Your task to perform on an android device: turn on showing notifications on the lock screen Image 0: 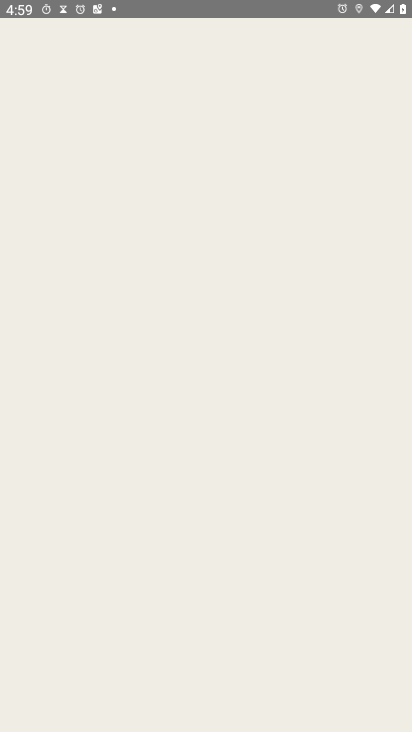
Step 0: press home button
Your task to perform on an android device: turn on showing notifications on the lock screen Image 1: 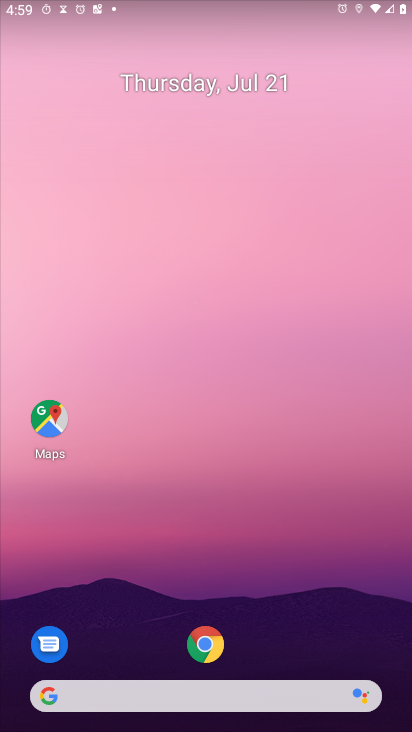
Step 1: drag from (253, 77) to (265, 12)
Your task to perform on an android device: turn on showing notifications on the lock screen Image 2: 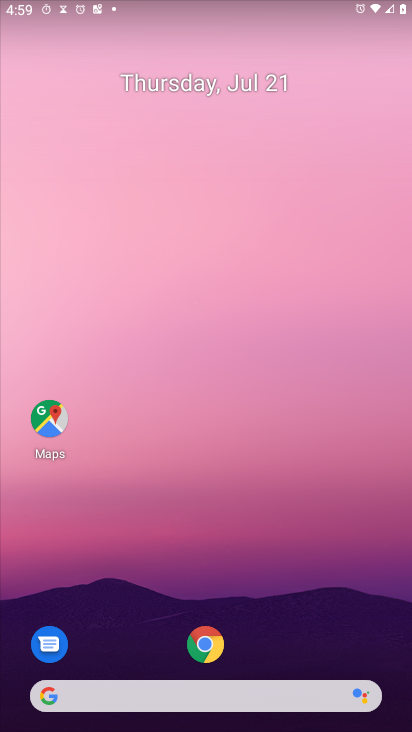
Step 2: drag from (276, 564) to (266, 0)
Your task to perform on an android device: turn on showing notifications on the lock screen Image 3: 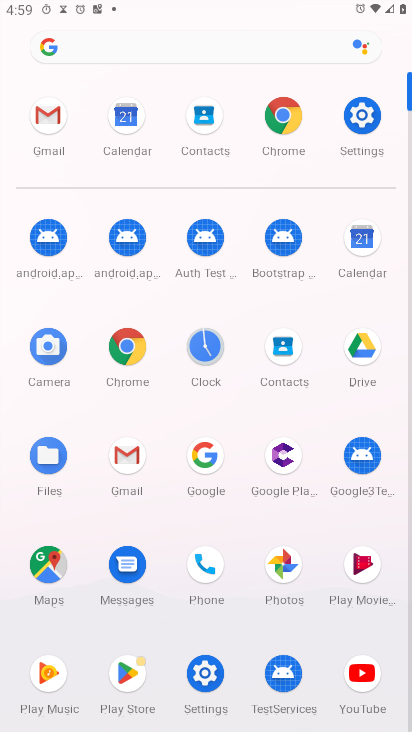
Step 3: click (363, 116)
Your task to perform on an android device: turn on showing notifications on the lock screen Image 4: 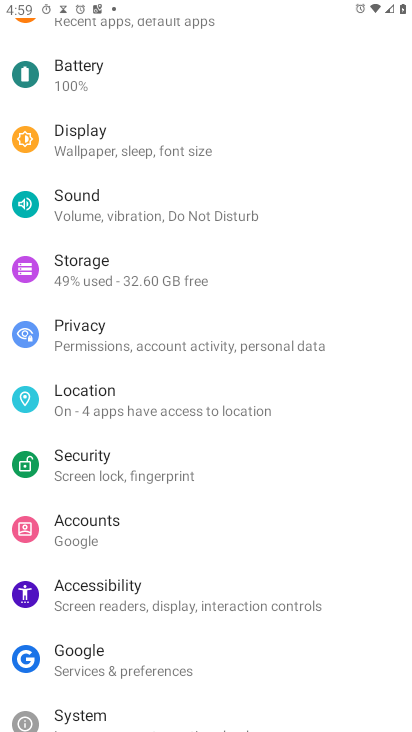
Step 4: drag from (143, 99) to (122, 543)
Your task to perform on an android device: turn on showing notifications on the lock screen Image 5: 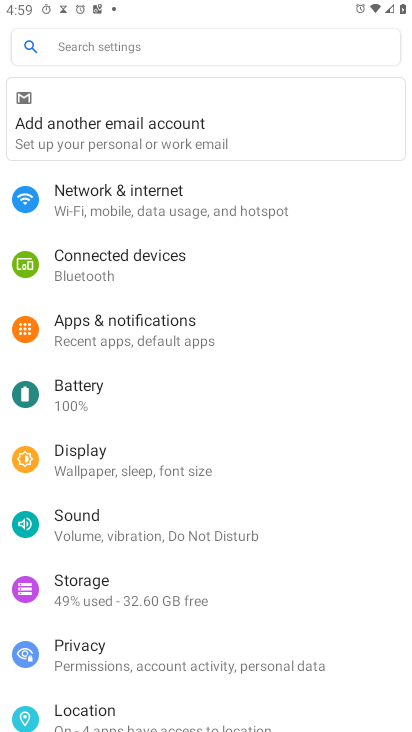
Step 5: click (108, 332)
Your task to perform on an android device: turn on showing notifications on the lock screen Image 6: 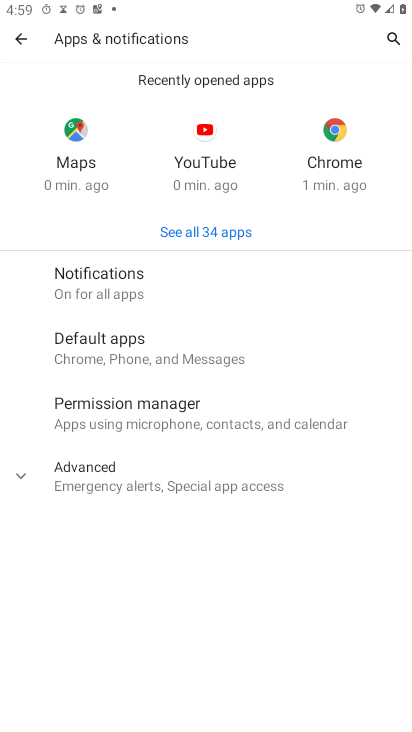
Step 6: click (75, 298)
Your task to perform on an android device: turn on showing notifications on the lock screen Image 7: 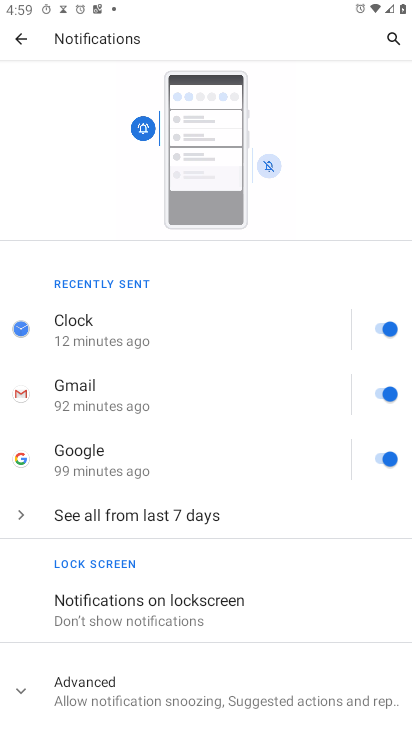
Step 7: click (150, 608)
Your task to perform on an android device: turn on showing notifications on the lock screen Image 8: 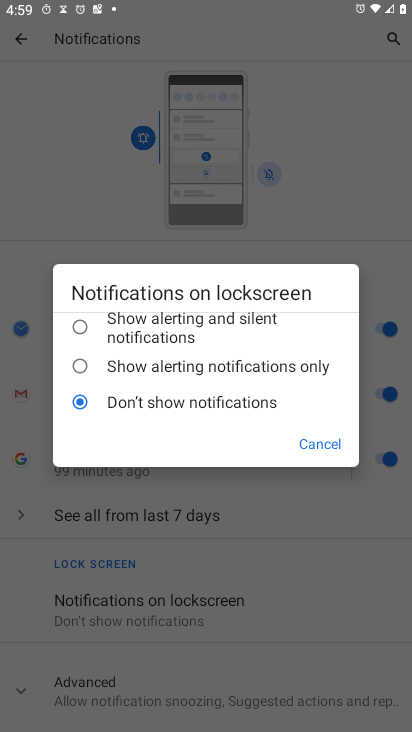
Step 8: click (73, 322)
Your task to perform on an android device: turn on showing notifications on the lock screen Image 9: 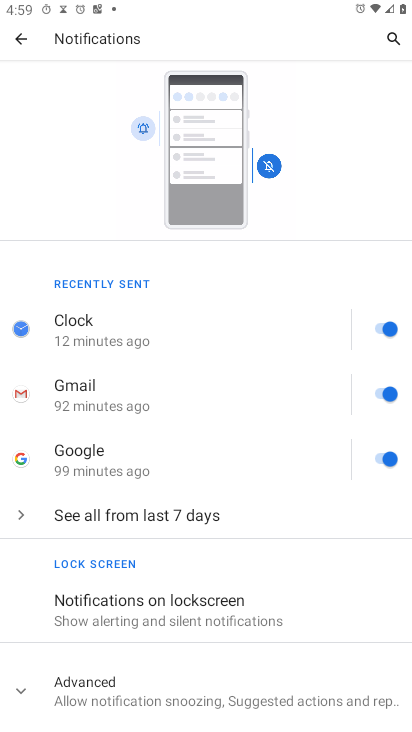
Step 9: task complete